Your task to perform on an android device: Open privacy settings Image 0: 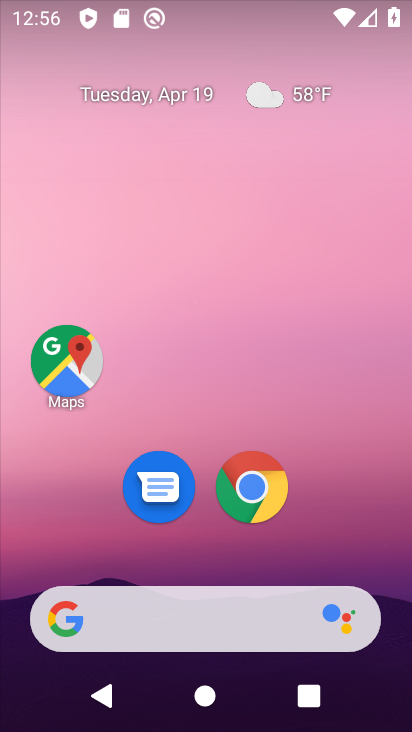
Step 0: drag from (210, 725) to (256, 34)
Your task to perform on an android device: Open privacy settings Image 1: 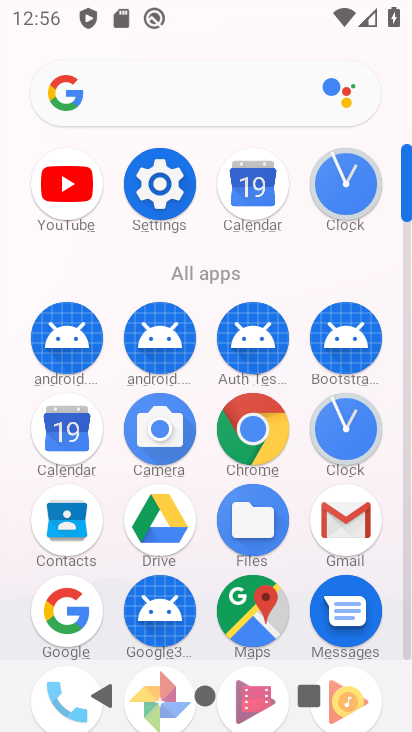
Step 1: click (165, 190)
Your task to perform on an android device: Open privacy settings Image 2: 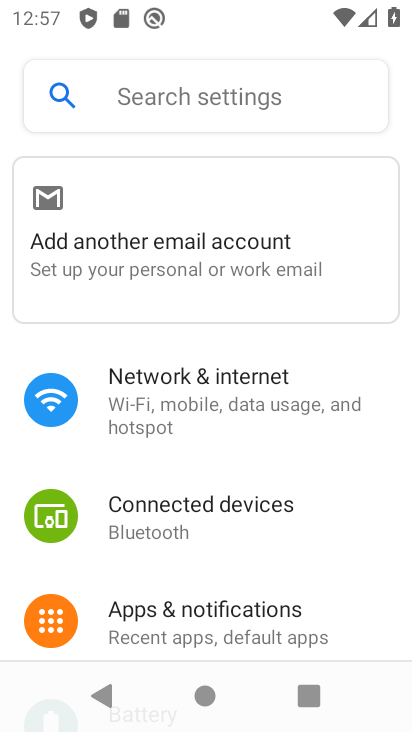
Step 2: drag from (223, 634) to (238, 185)
Your task to perform on an android device: Open privacy settings Image 3: 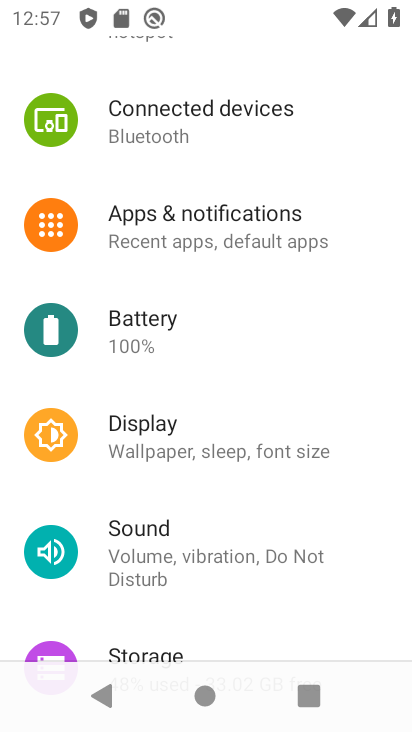
Step 3: drag from (181, 622) to (191, 183)
Your task to perform on an android device: Open privacy settings Image 4: 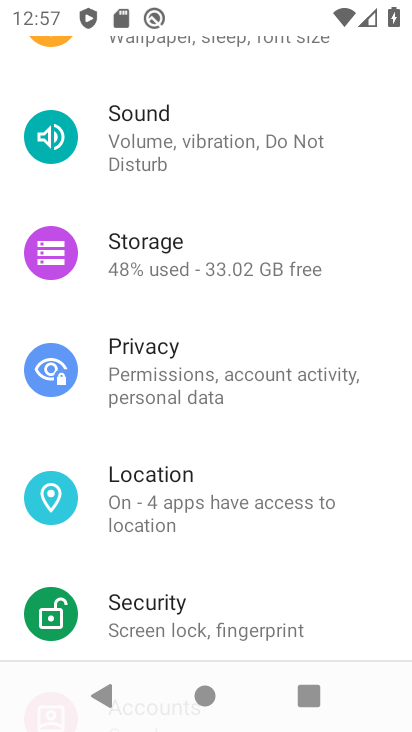
Step 4: click (155, 366)
Your task to perform on an android device: Open privacy settings Image 5: 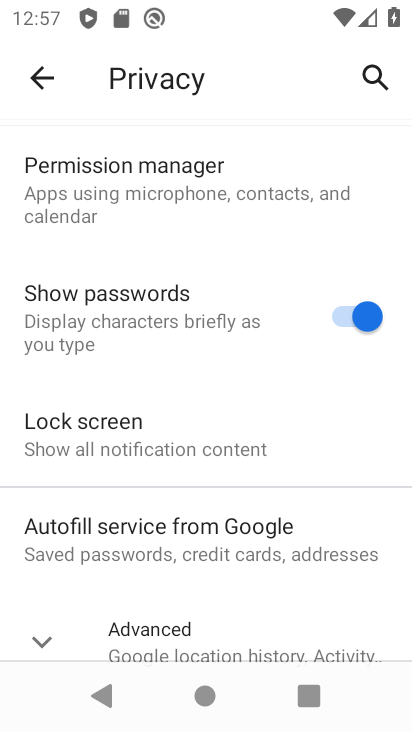
Step 5: task complete